Your task to perform on an android device: change the upload size in google photos Image 0: 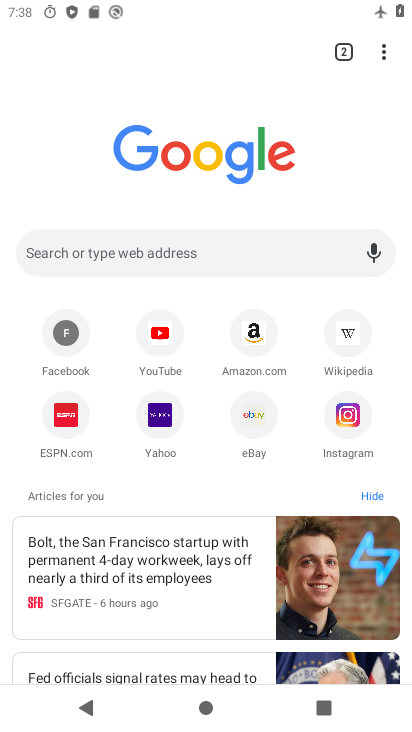
Step 0: press home button
Your task to perform on an android device: change the upload size in google photos Image 1: 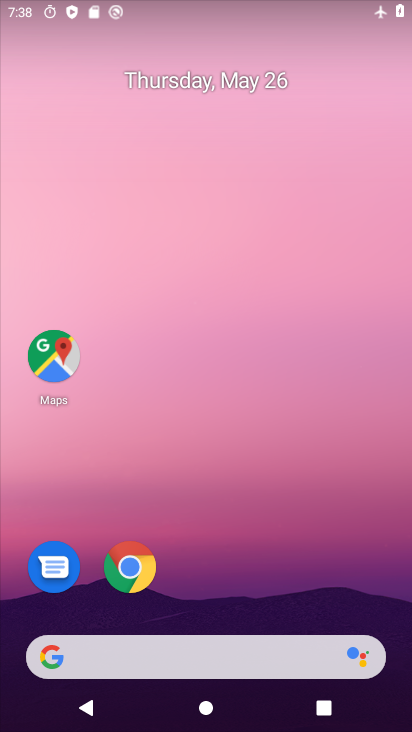
Step 1: drag from (160, 658) to (333, 230)
Your task to perform on an android device: change the upload size in google photos Image 2: 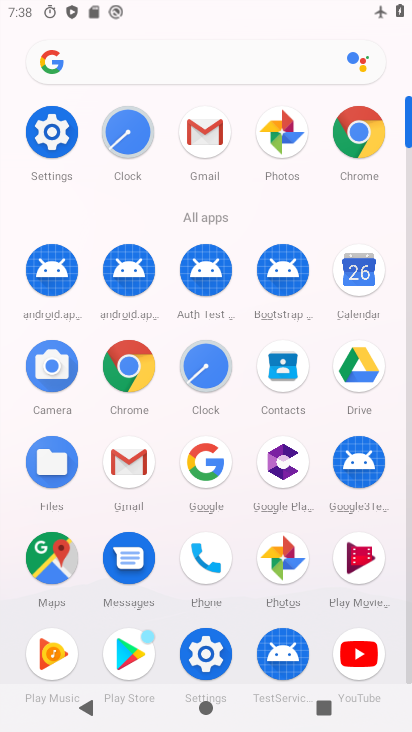
Step 2: click (283, 554)
Your task to perform on an android device: change the upload size in google photos Image 3: 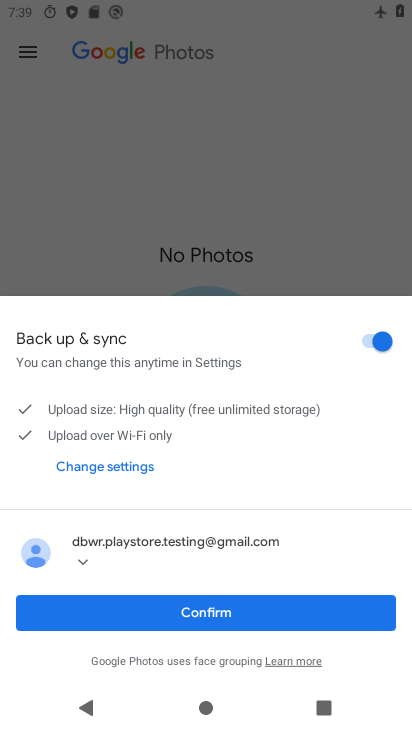
Step 3: click (205, 614)
Your task to perform on an android device: change the upload size in google photos Image 4: 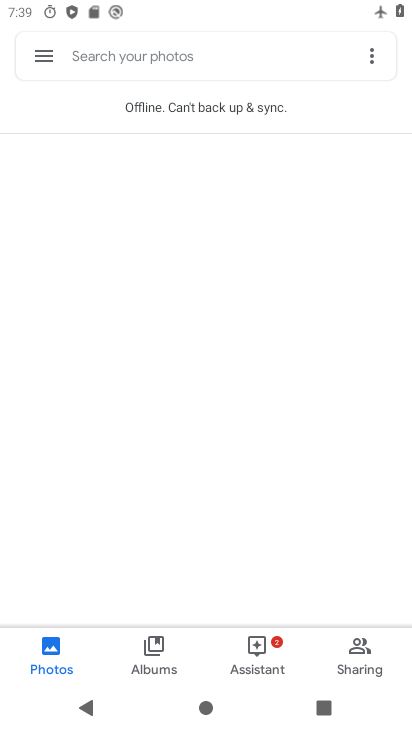
Step 4: click (44, 49)
Your task to perform on an android device: change the upload size in google photos Image 5: 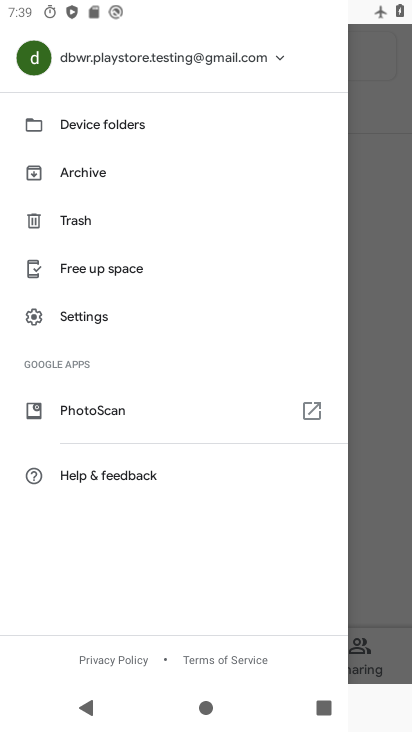
Step 5: click (95, 313)
Your task to perform on an android device: change the upload size in google photos Image 6: 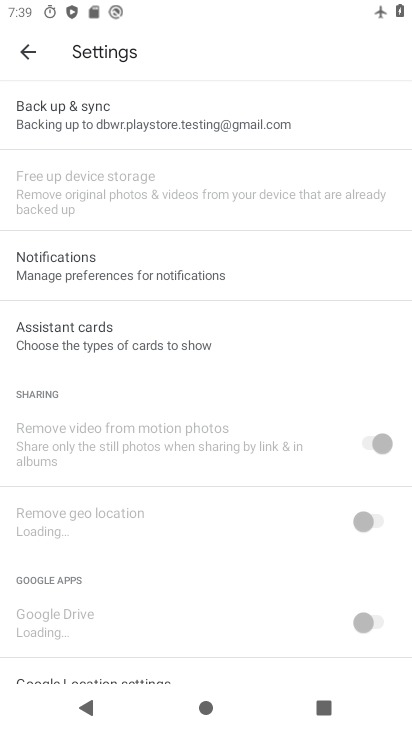
Step 6: click (125, 114)
Your task to perform on an android device: change the upload size in google photos Image 7: 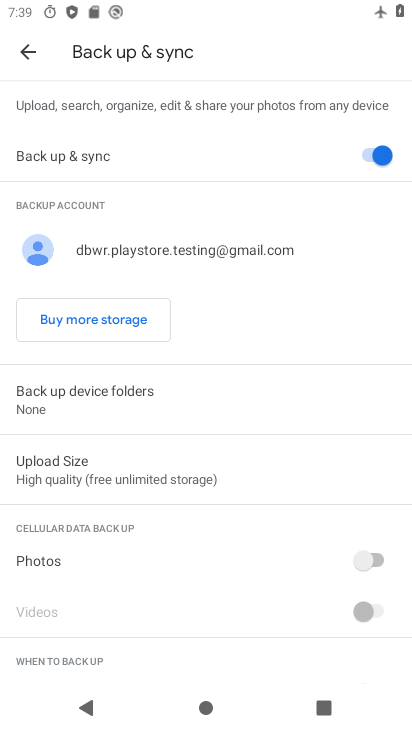
Step 7: click (70, 464)
Your task to perform on an android device: change the upload size in google photos Image 8: 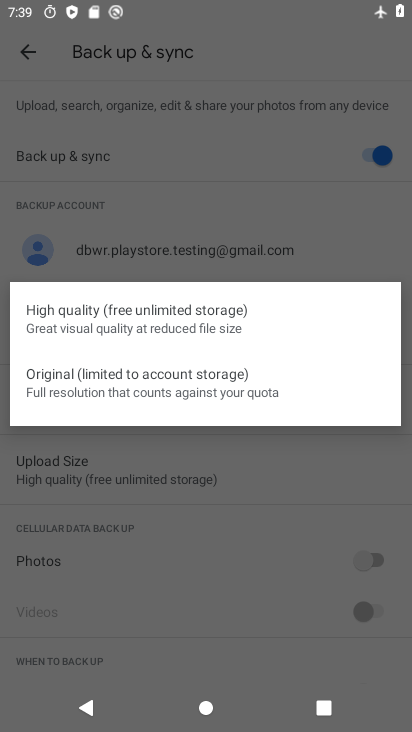
Step 8: click (102, 376)
Your task to perform on an android device: change the upload size in google photos Image 9: 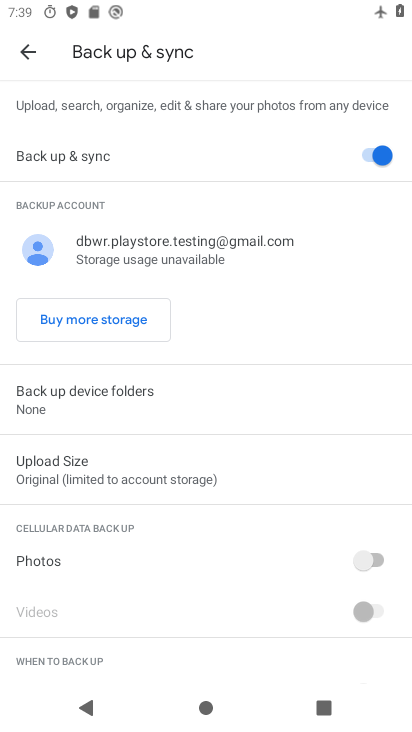
Step 9: task complete